Your task to perform on an android device: Open Google Chrome and click the shortcut for Amazon.com Image 0: 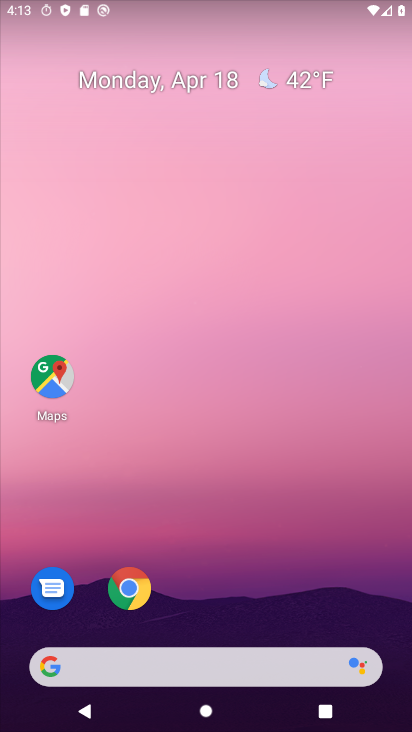
Step 0: click (126, 595)
Your task to perform on an android device: Open Google Chrome and click the shortcut for Amazon.com Image 1: 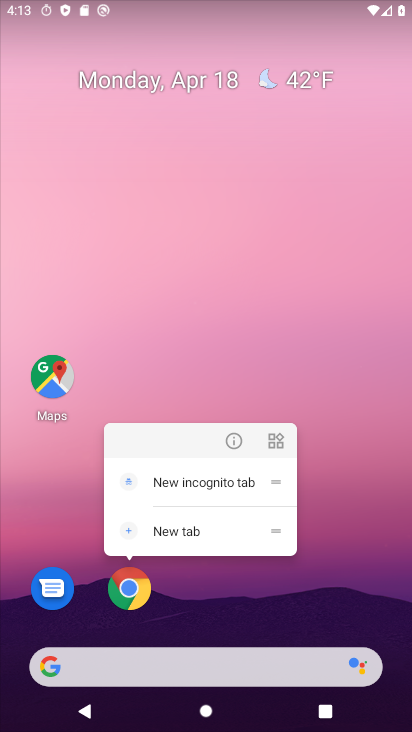
Step 1: click (126, 595)
Your task to perform on an android device: Open Google Chrome and click the shortcut for Amazon.com Image 2: 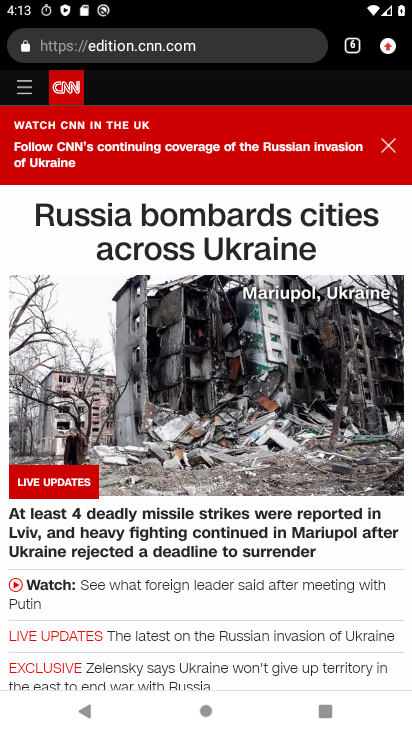
Step 2: click (353, 48)
Your task to perform on an android device: Open Google Chrome and click the shortcut for Amazon.com Image 3: 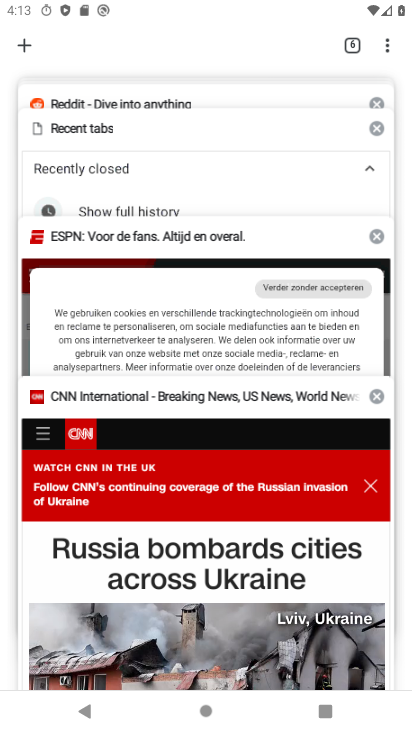
Step 3: click (20, 49)
Your task to perform on an android device: Open Google Chrome and click the shortcut for Amazon.com Image 4: 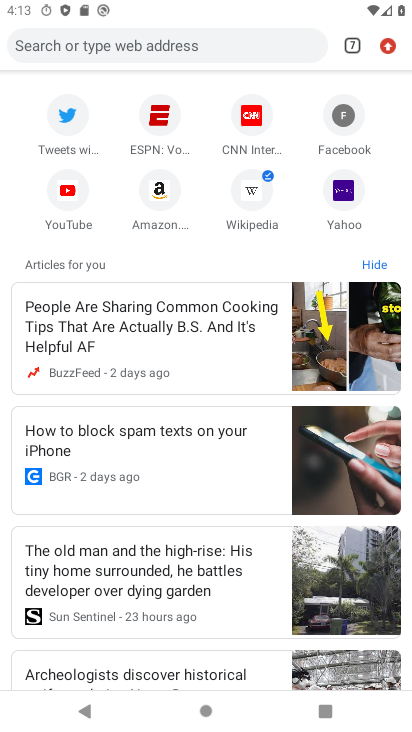
Step 4: click (155, 190)
Your task to perform on an android device: Open Google Chrome and click the shortcut for Amazon.com Image 5: 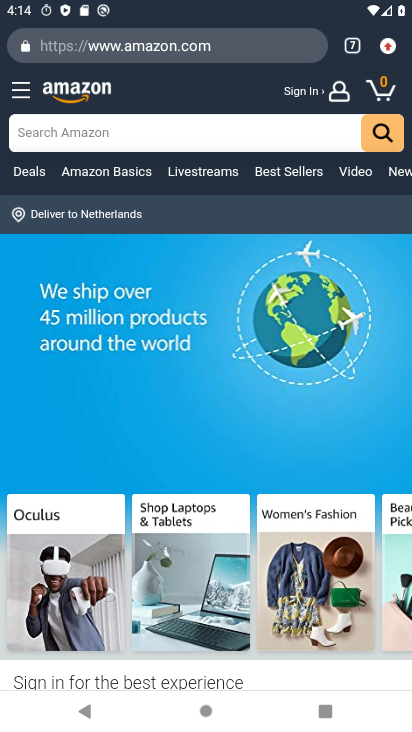
Step 5: task complete